Your task to perform on an android device: turn pop-ups off in chrome Image 0: 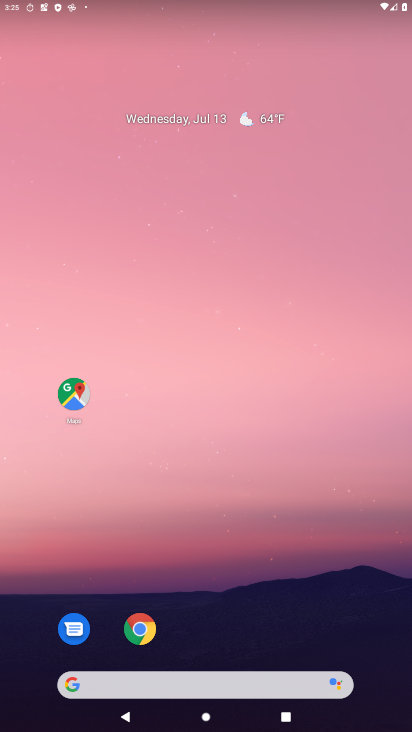
Step 0: drag from (330, 678) to (382, 4)
Your task to perform on an android device: turn pop-ups off in chrome Image 1: 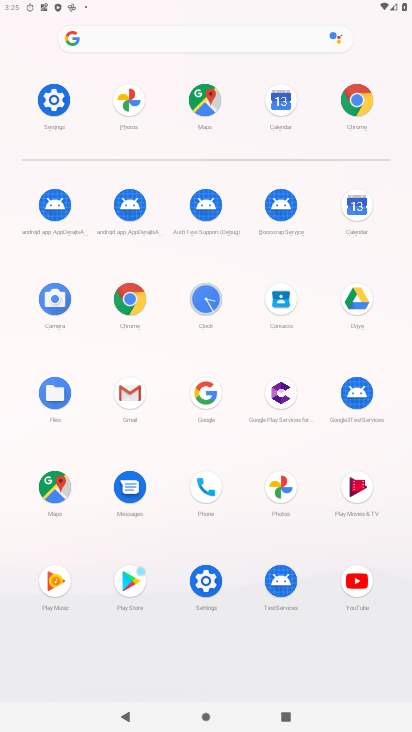
Step 1: click (132, 298)
Your task to perform on an android device: turn pop-ups off in chrome Image 2: 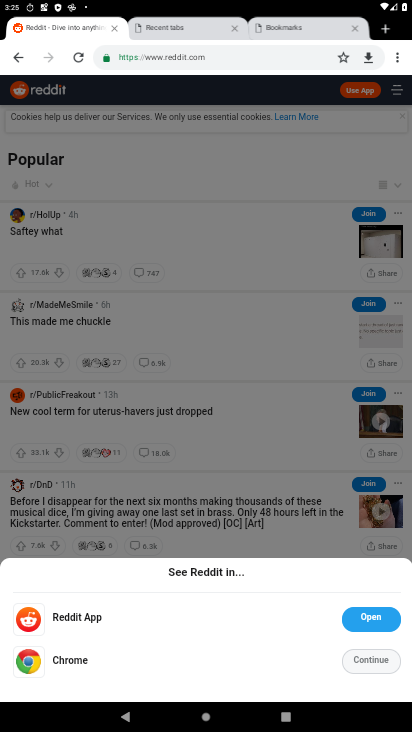
Step 2: drag from (392, 53) to (277, 376)
Your task to perform on an android device: turn pop-ups off in chrome Image 3: 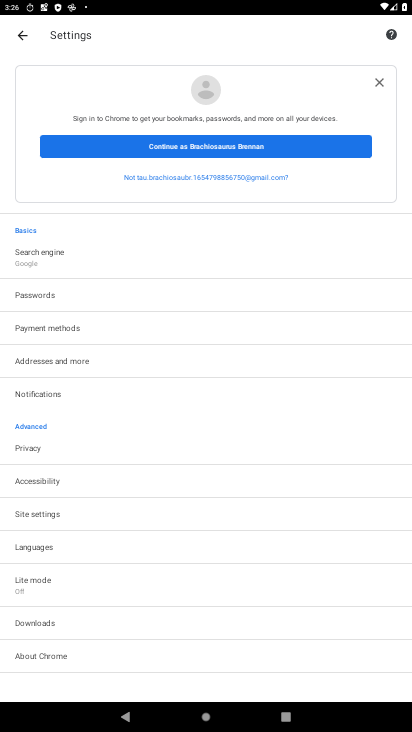
Step 3: click (66, 519)
Your task to perform on an android device: turn pop-ups off in chrome Image 4: 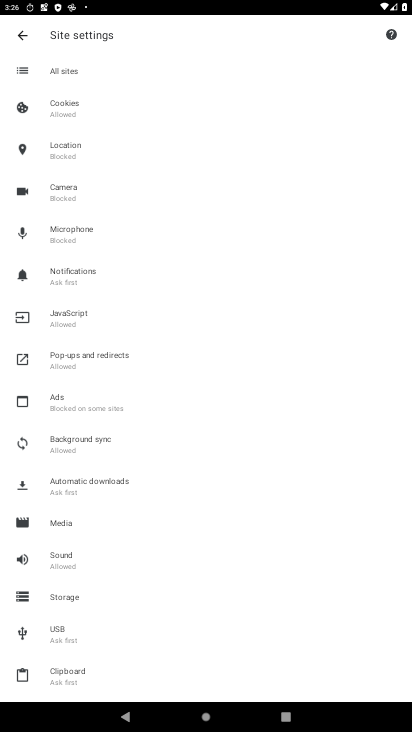
Step 4: click (91, 365)
Your task to perform on an android device: turn pop-ups off in chrome Image 5: 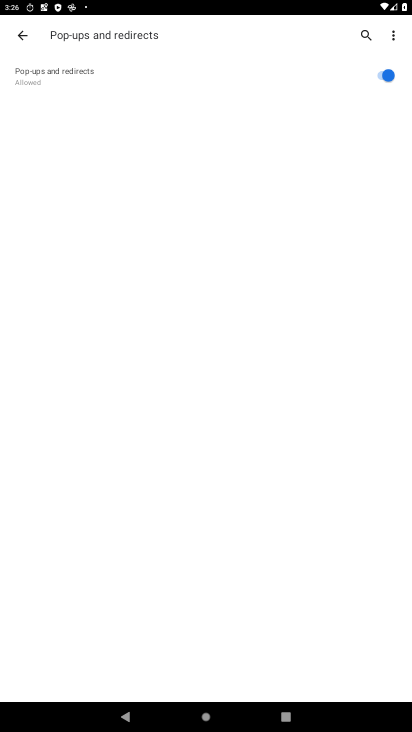
Step 5: click (376, 71)
Your task to perform on an android device: turn pop-ups off in chrome Image 6: 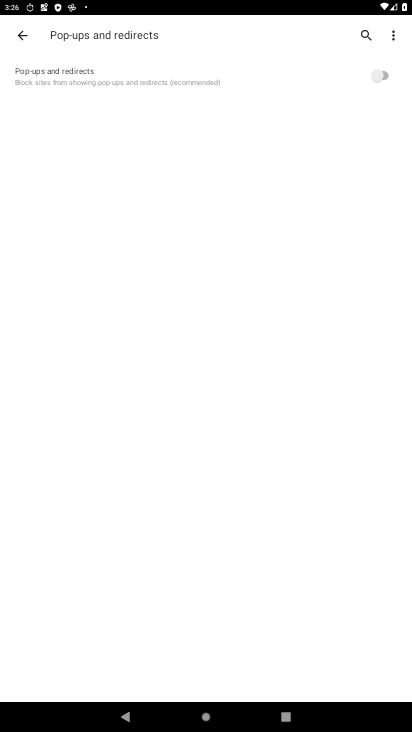
Step 6: task complete